Your task to perform on an android device: Go to Google maps Image 0: 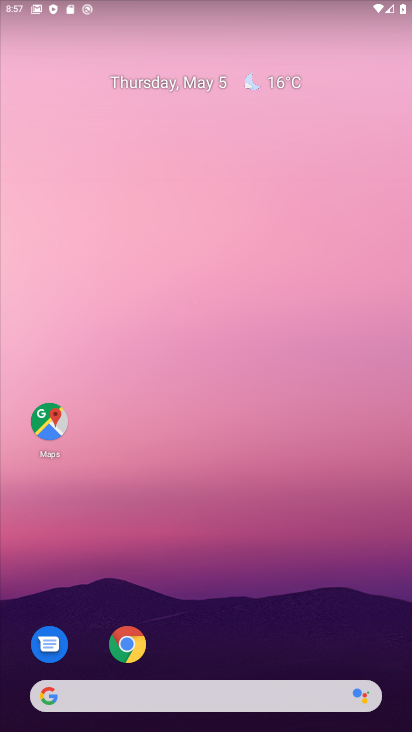
Step 0: drag from (362, 597) to (387, 86)
Your task to perform on an android device: Go to Google maps Image 1: 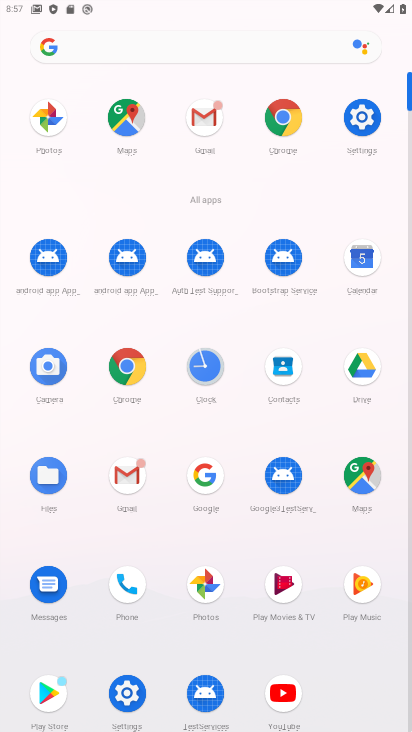
Step 1: click (123, 127)
Your task to perform on an android device: Go to Google maps Image 2: 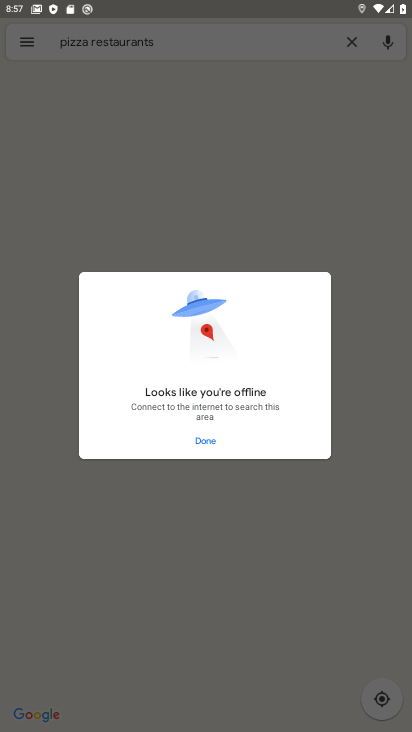
Step 2: click (205, 442)
Your task to perform on an android device: Go to Google maps Image 3: 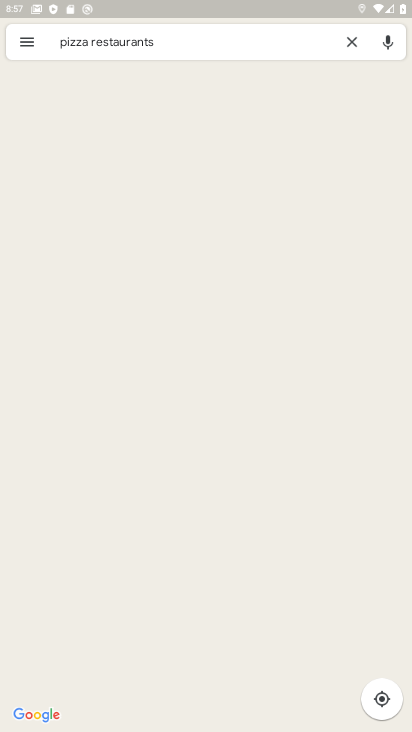
Step 3: click (352, 42)
Your task to perform on an android device: Go to Google maps Image 4: 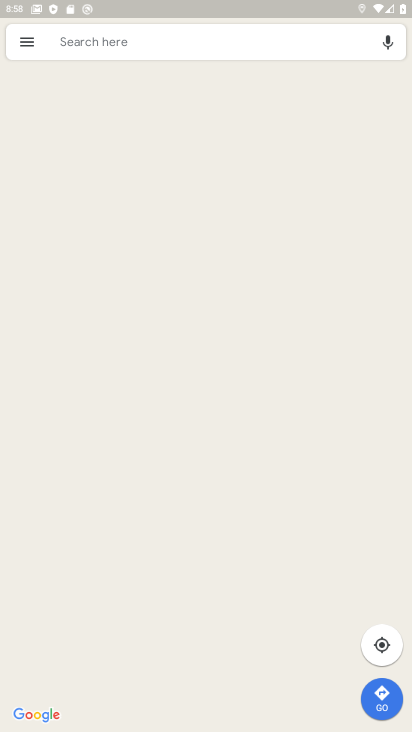
Step 4: task complete